Your task to perform on an android device: Search for Italian restaurants on Maps Image 0: 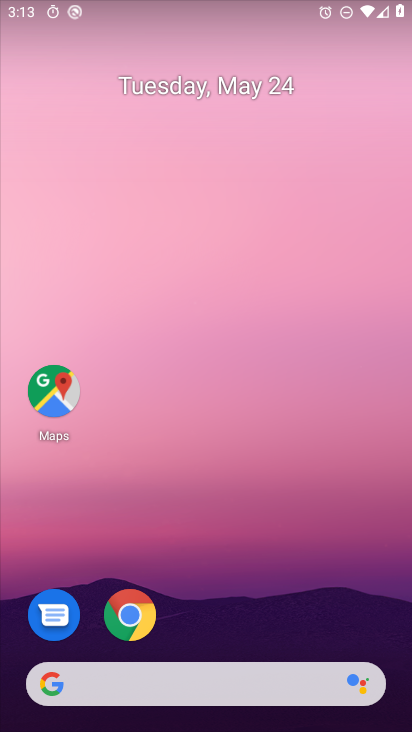
Step 0: drag from (146, 661) to (241, 54)
Your task to perform on an android device: Search for Italian restaurants on Maps Image 1: 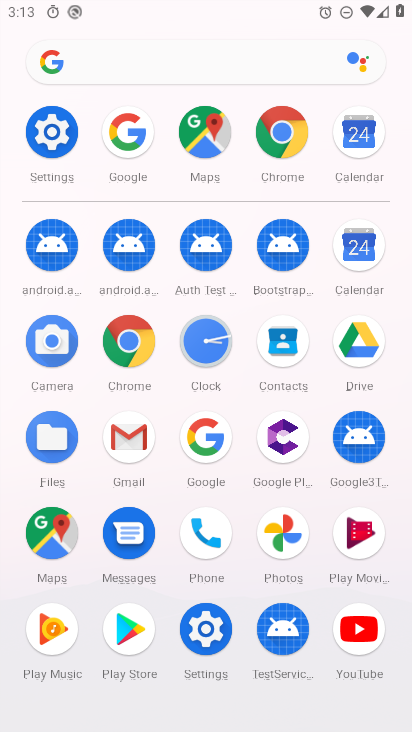
Step 1: click (60, 547)
Your task to perform on an android device: Search for Italian restaurants on Maps Image 2: 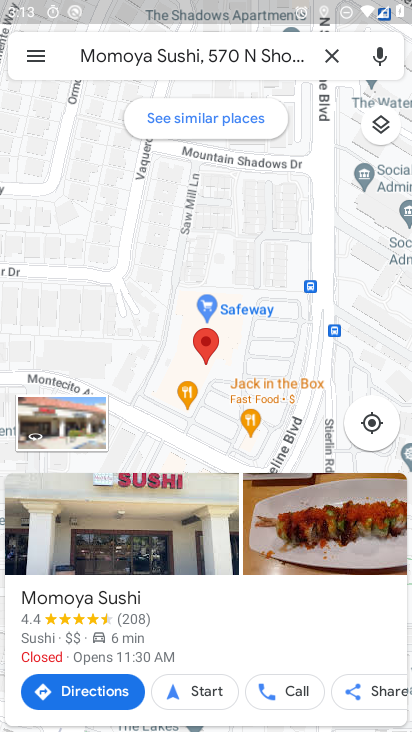
Step 2: click (332, 54)
Your task to perform on an android device: Search for Italian restaurants on Maps Image 3: 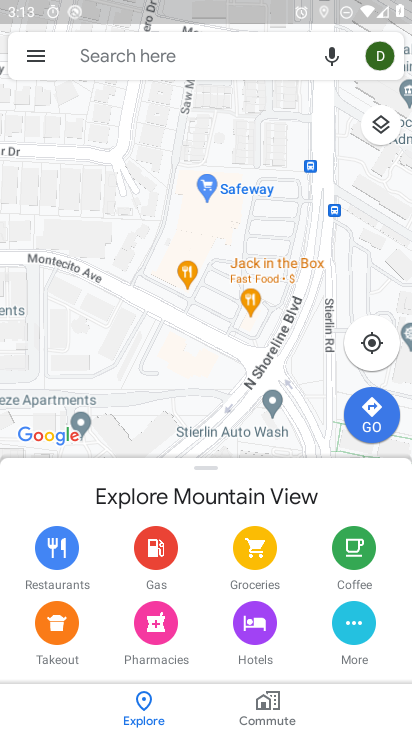
Step 3: click (161, 60)
Your task to perform on an android device: Search for Italian restaurants on Maps Image 4: 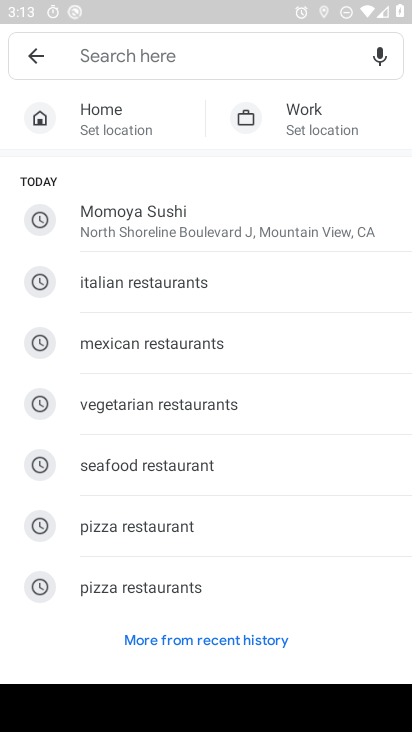
Step 4: click (136, 638)
Your task to perform on an android device: Search for Italian restaurants on Maps Image 5: 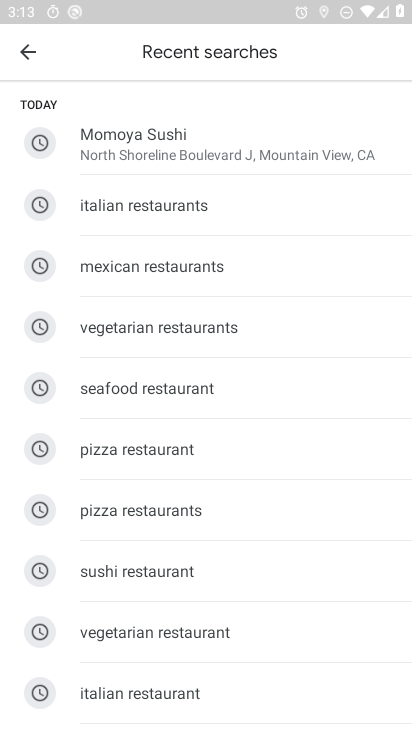
Step 5: click (140, 204)
Your task to perform on an android device: Search for Italian restaurants on Maps Image 6: 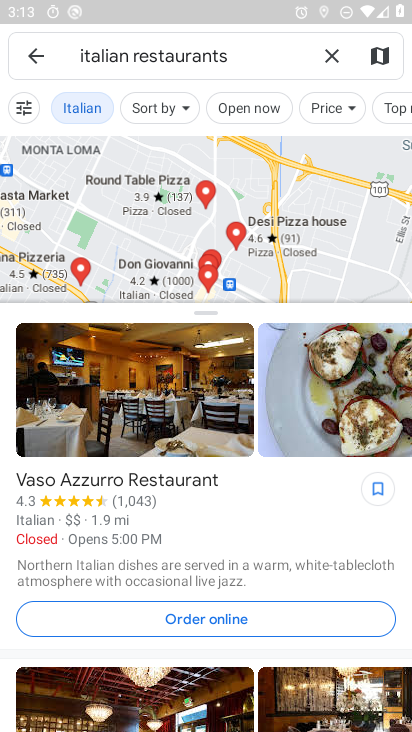
Step 6: task complete